Your task to perform on an android device: Open calendar and show me the third week of next month Image 0: 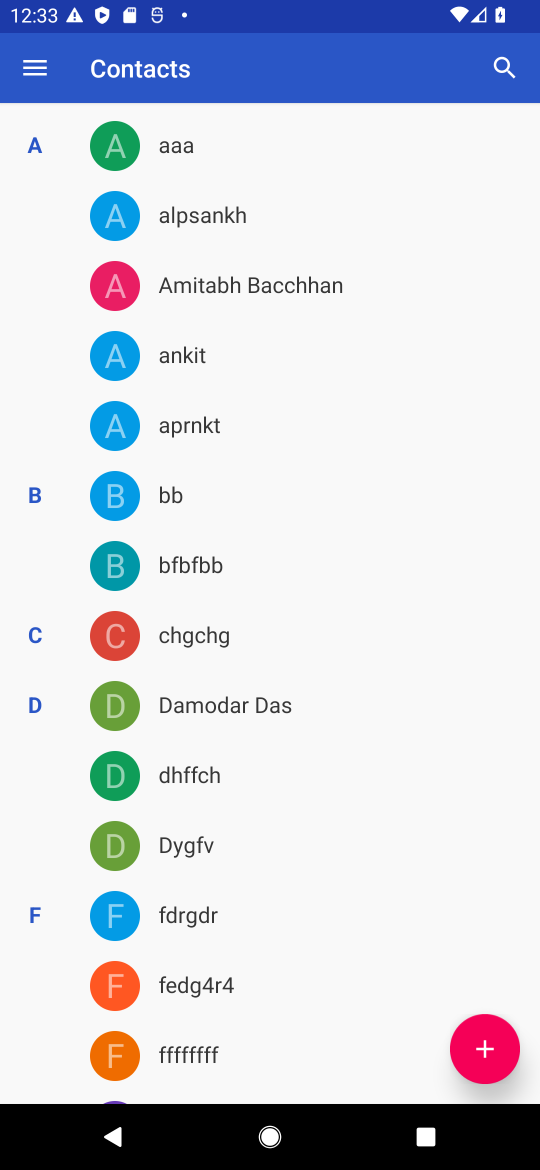
Step 0: press home button
Your task to perform on an android device: Open calendar and show me the third week of next month Image 1: 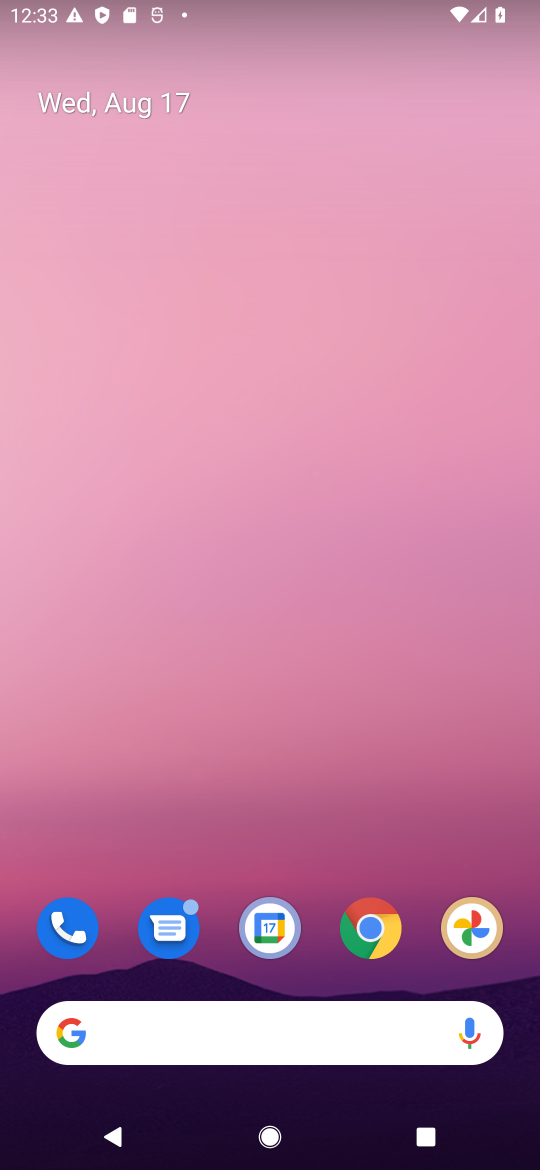
Step 1: click (243, 867)
Your task to perform on an android device: Open calendar and show me the third week of next month Image 2: 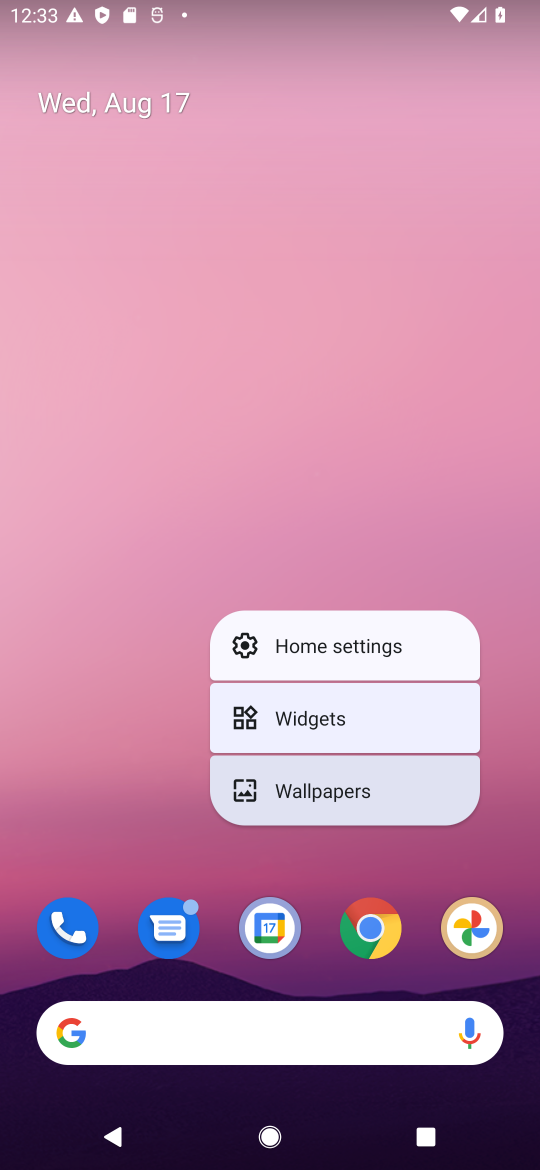
Step 2: click (286, 930)
Your task to perform on an android device: Open calendar and show me the third week of next month Image 3: 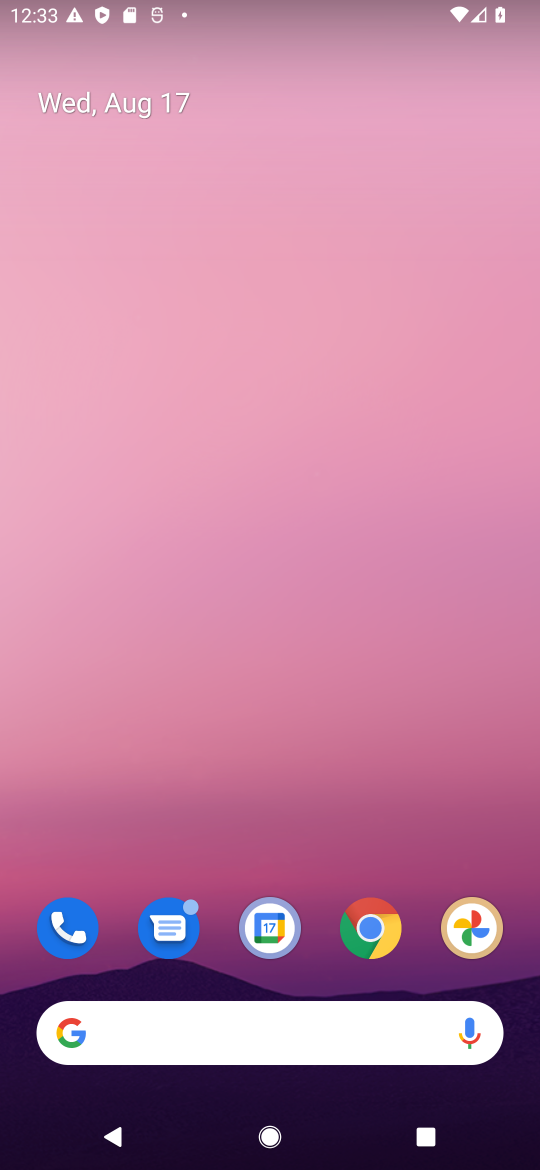
Step 3: click (286, 933)
Your task to perform on an android device: Open calendar and show me the third week of next month Image 4: 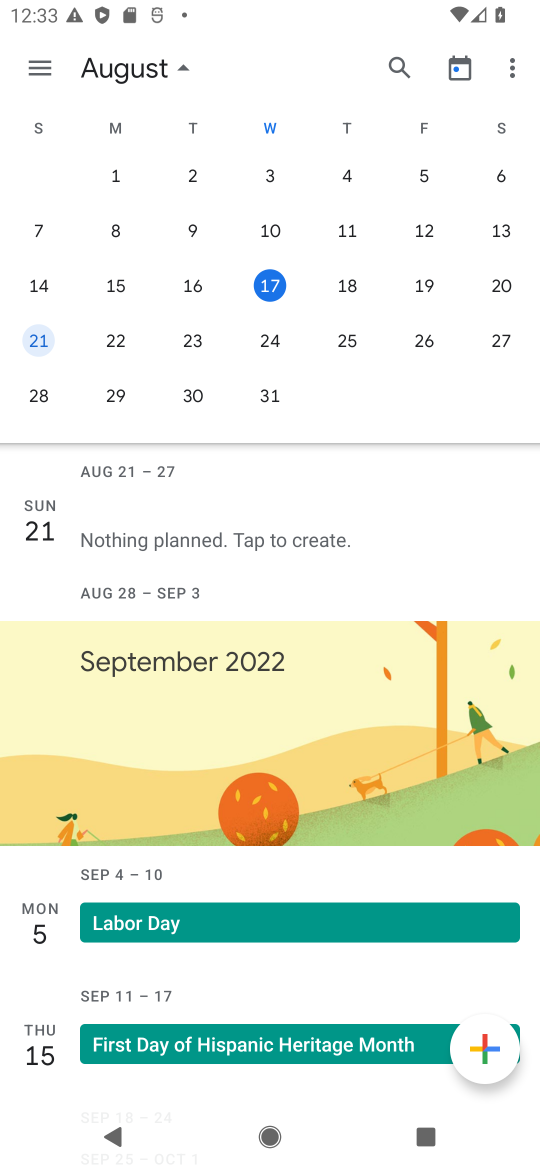
Step 4: drag from (451, 250) to (45, 322)
Your task to perform on an android device: Open calendar and show me the third week of next month Image 5: 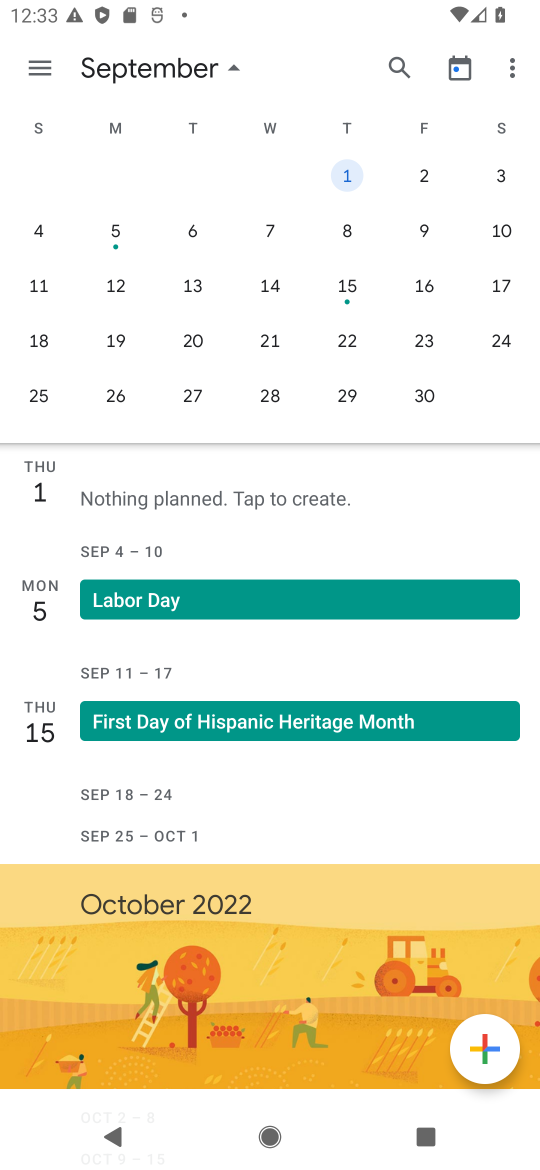
Step 5: click (43, 277)
Your task to perform on an android device: Open calendar and show me the third week of next month Image 6: 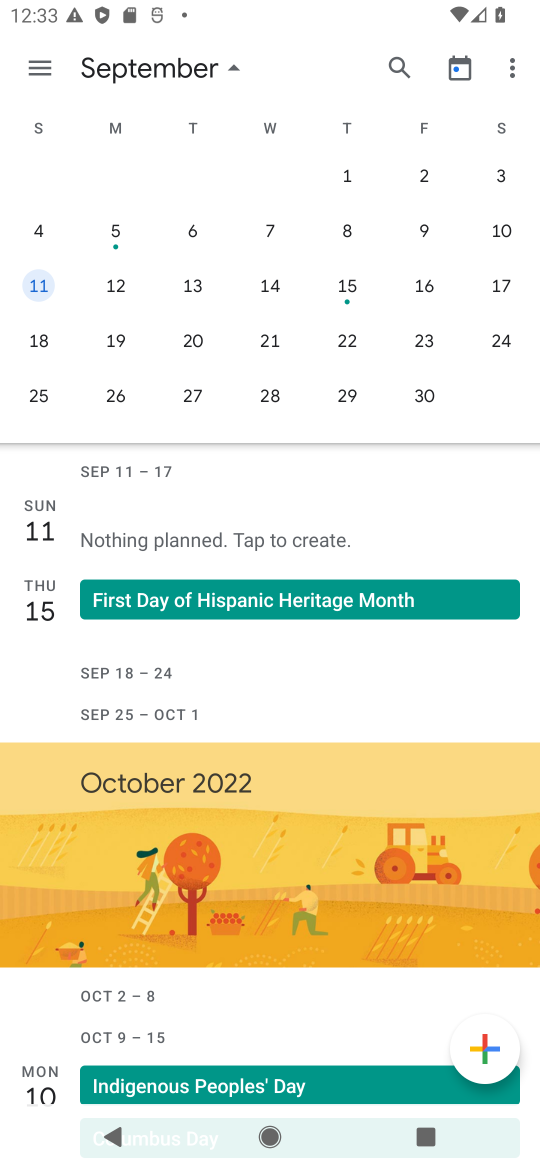
Step 6: task complete